Your task to perform on an android device: Search for vegetarian restaurants on Maps Image 0: 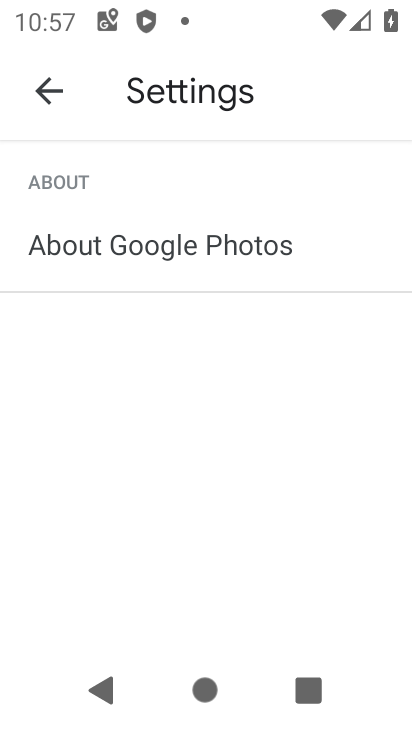
Step 0: press back button
Your task to perform on an android device: Search for vegetarian restaurants on Maps Image 1: 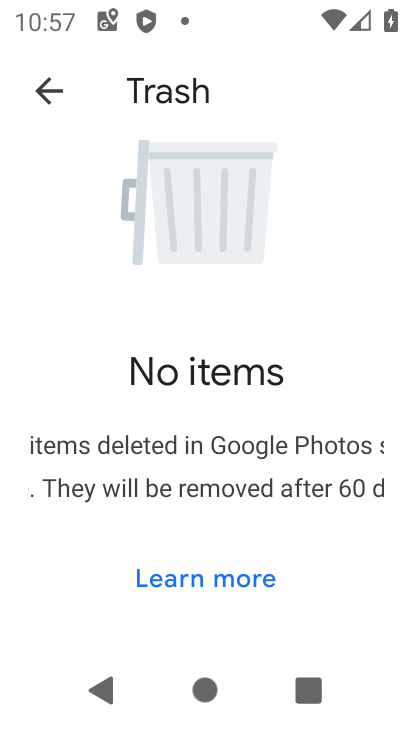
Step 1: press back button
Your task to perform on an android device: Search for vegetarian restaurants on Maps Image 2: 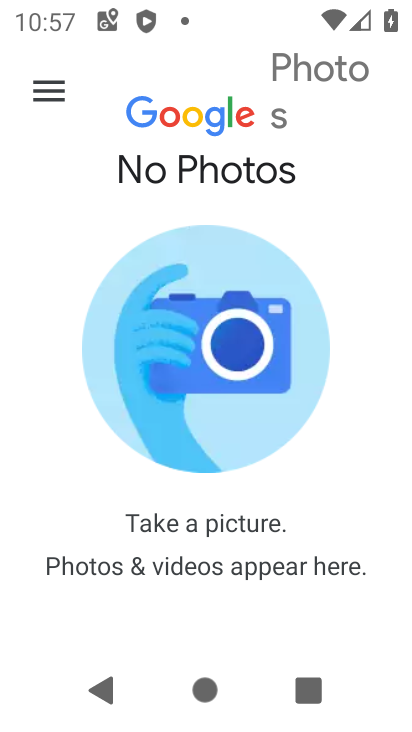
Step 2: press back button
Your task to perform on an android device: Search for vegetarian restaurants on Maps Image 3: 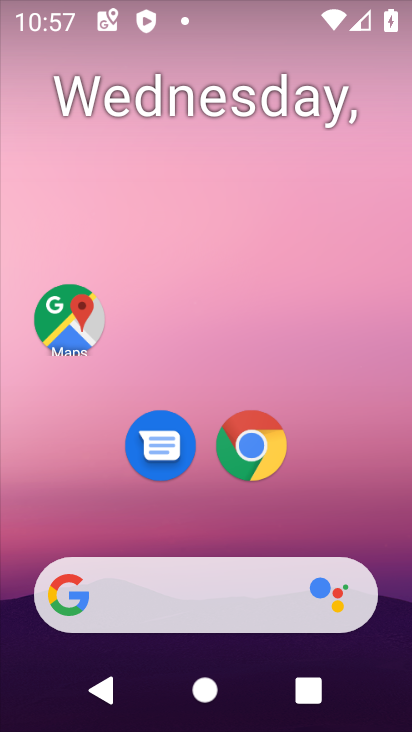
Step 3: click (69, 315)
Your task to perform on an android device: Search for vegetarian restaurants on Maps Image 4: 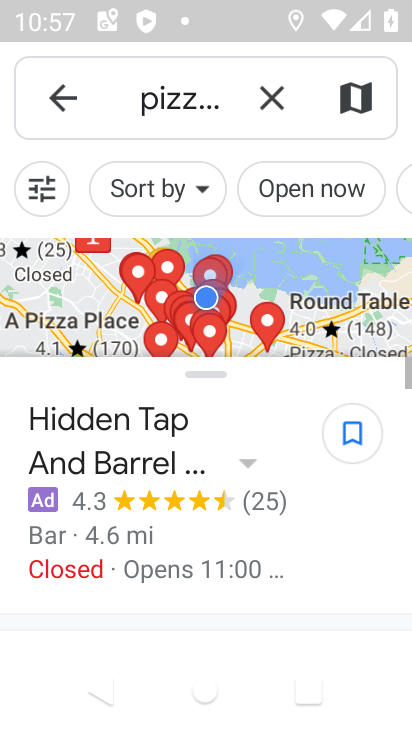
Step 4: click (279, 91)
Your task to perform on an android device: Search for vegetarian restaurants on Maps Image 5: 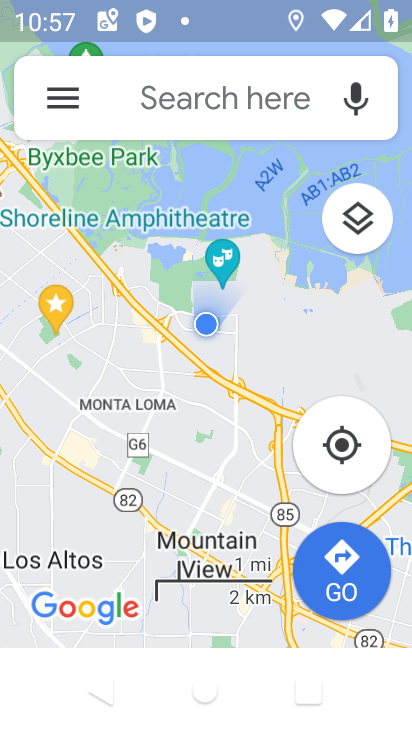
Step 5: click (174, 94)
Your task to perform on an android device: Search for vegetarian restaurants on Maps Image 6: 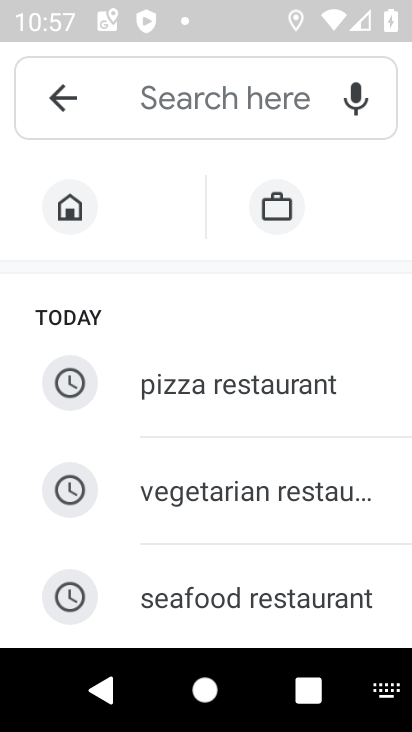
Step 6: click (213, 492)
Your task to perform on an android device: Search for vegetarian restaurants on Maps Image 7: 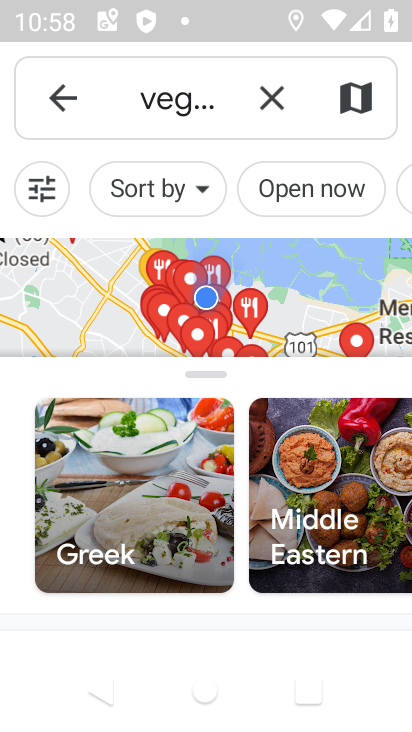
Step 7: task complete